Your task to perform on an android device: Go to CNN.com Image 0: 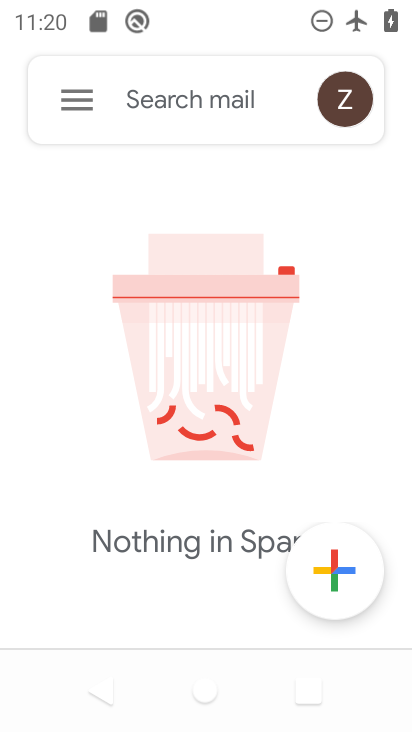
Step 0: press home button
Your task to perform on an android device: Go to CNN.com Image 1: 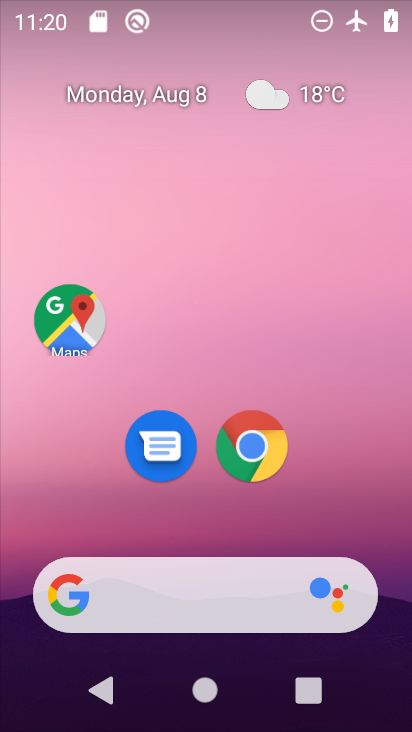
Step 1: click (249, 445)
Your task to perform on an android device: Go to CNN.com Image 2: 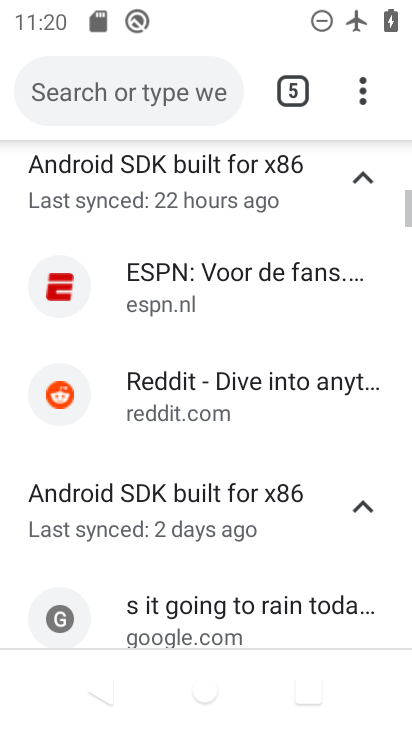
Step 2: click (150, 92)
Your task to perform on an android device: Go to CNN.com Image 3: 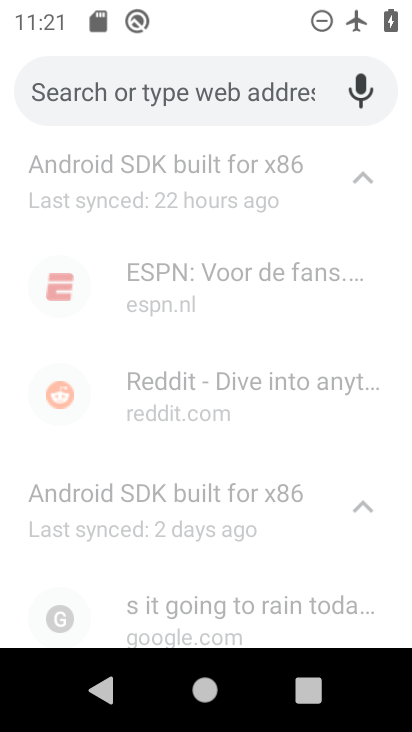
Step 3: type "cnn.com"
Your task to perform on an android device: Go to CNN.com Image 4: 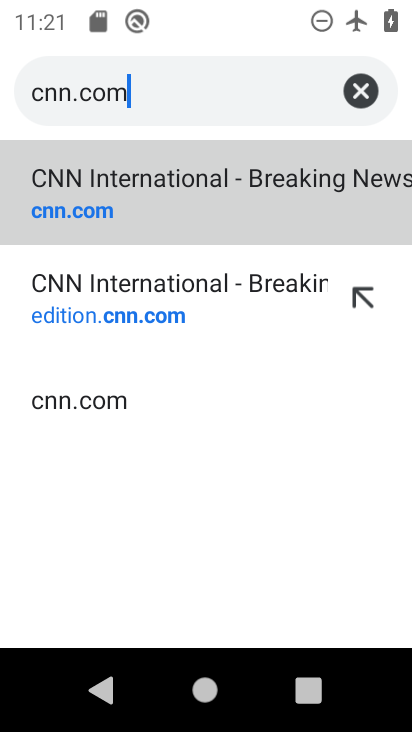
Step 4: click (120, 182)
Your task to perform on an android device: Go to CNN.com Image 5: 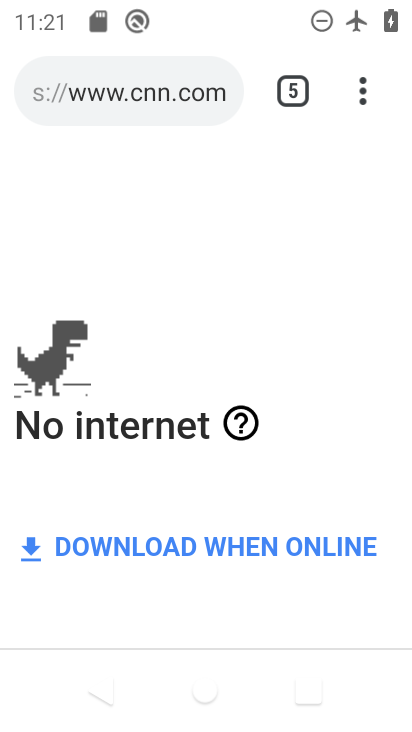
Step 5: task complete